Your task to perform on an android device: change the clock style Image 0: 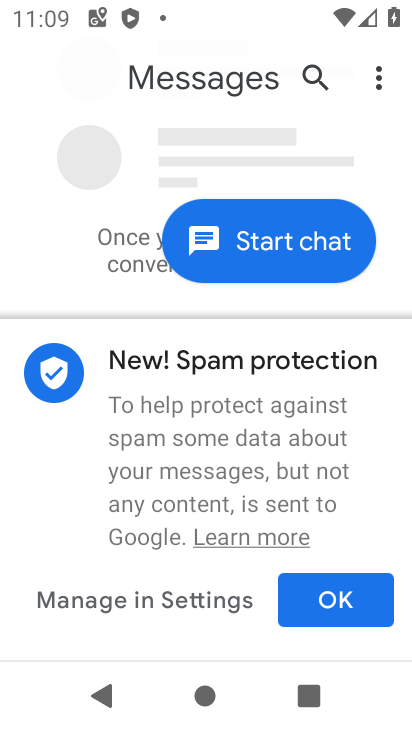
Step 0: press home button
Your task to perform on an android device: change the clock style Image 1: 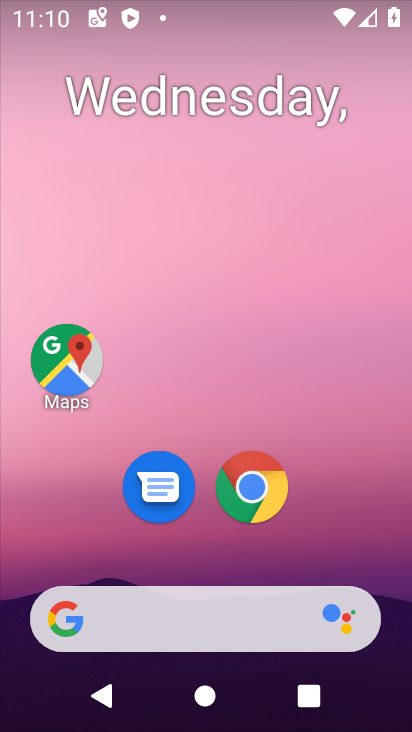
Step 1: drag from (379, 585) to (383, 11)
Your task to perform on an android device: change the clock style Image 2: 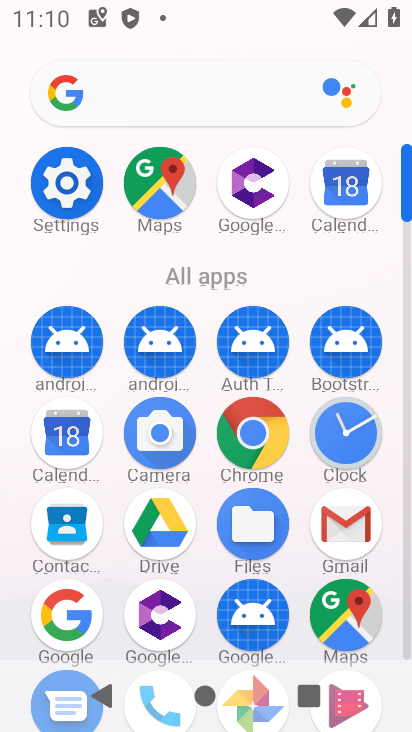
Step 2: click (347, 439)
Your task to perform on an android device: change the clock style Image 3: 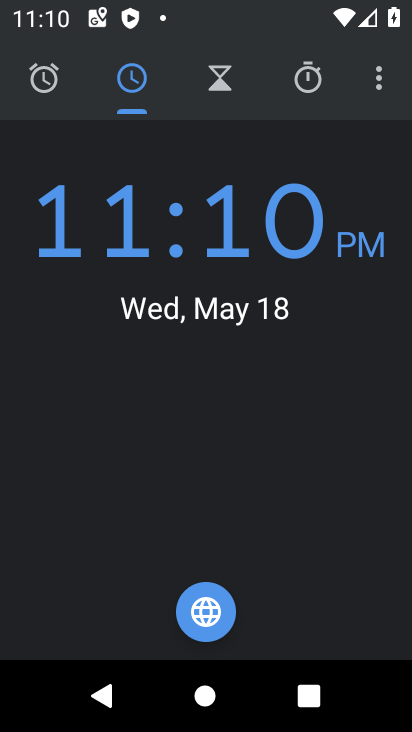
Step 3: click (380, 82)
Your task to perform on an android device: change the clock style Image 4: 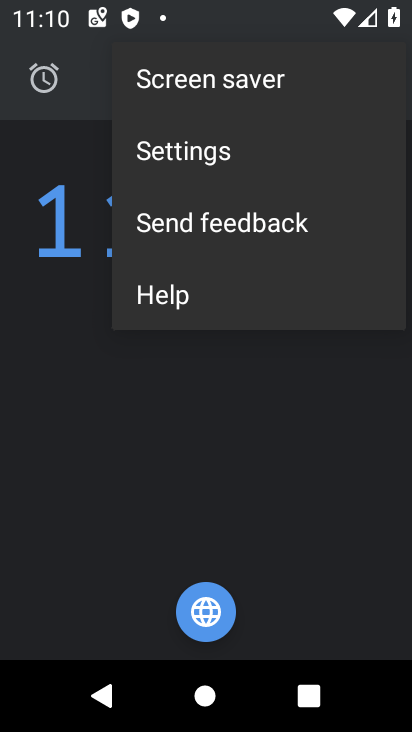
Step 4: click (188, 155)
Your task to perform on an android device: change the clock style Image 5: 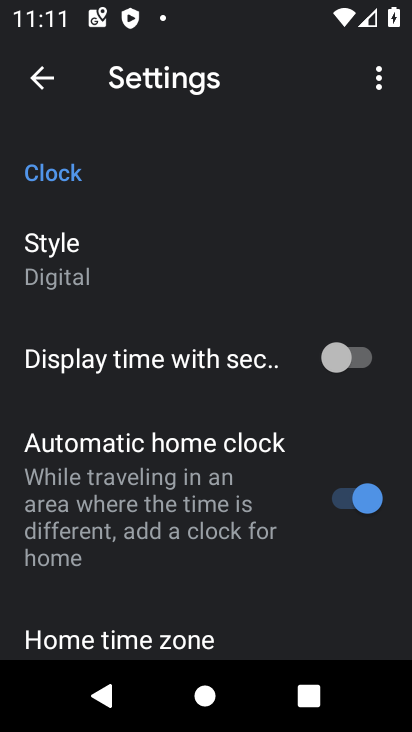
Step 5: task complete